Your task to perform on an android device: turn off wifi Image 0: 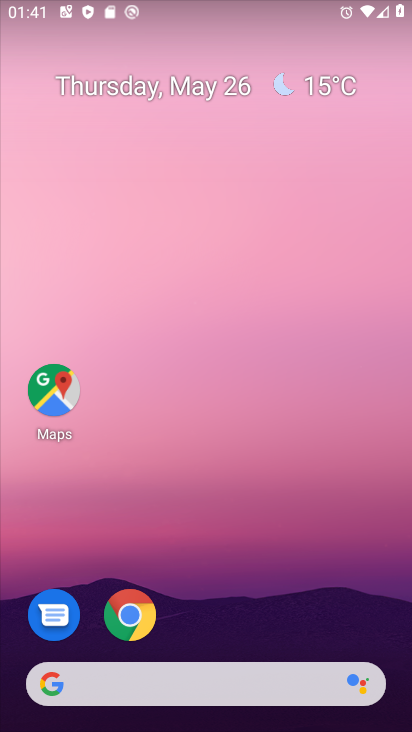
Step 0: drag from (108, 4) to (121, 563)
Your task to perform on an android device: turn off wifi Image 1: 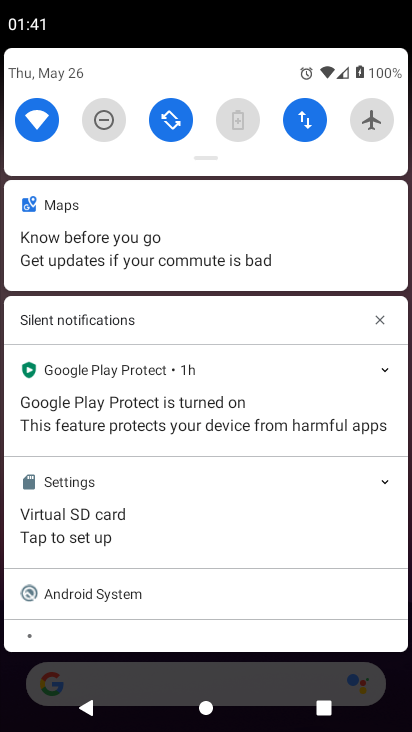
Step 1: click (44, 120)
Your task to perform on an android device: turn off wifi Image 2: 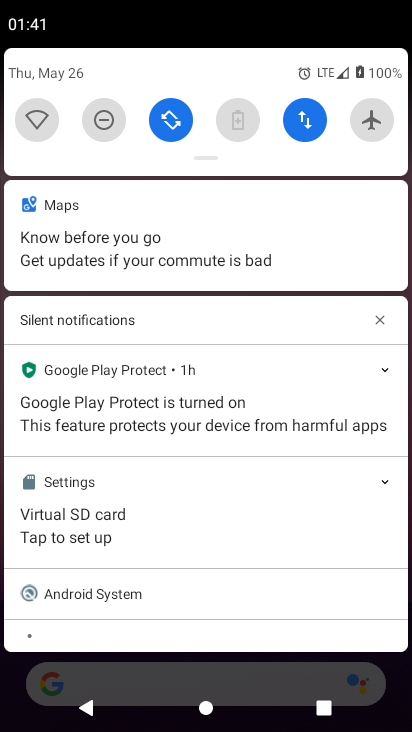
Step 2: task complete